Your task to perform on an android device: Open battery settings Image 0: 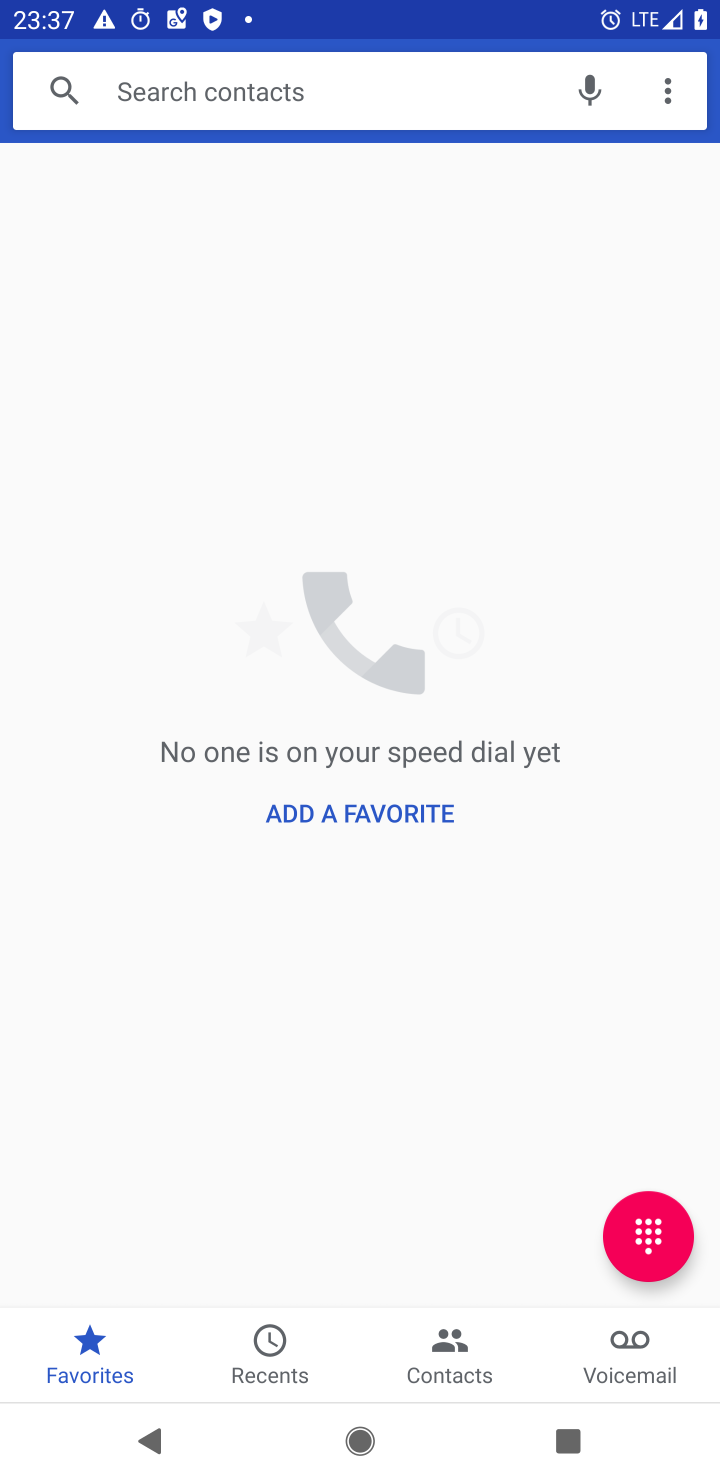
Step 0: press home button
Your task to perform on an android device: Open battery settings Image 1: 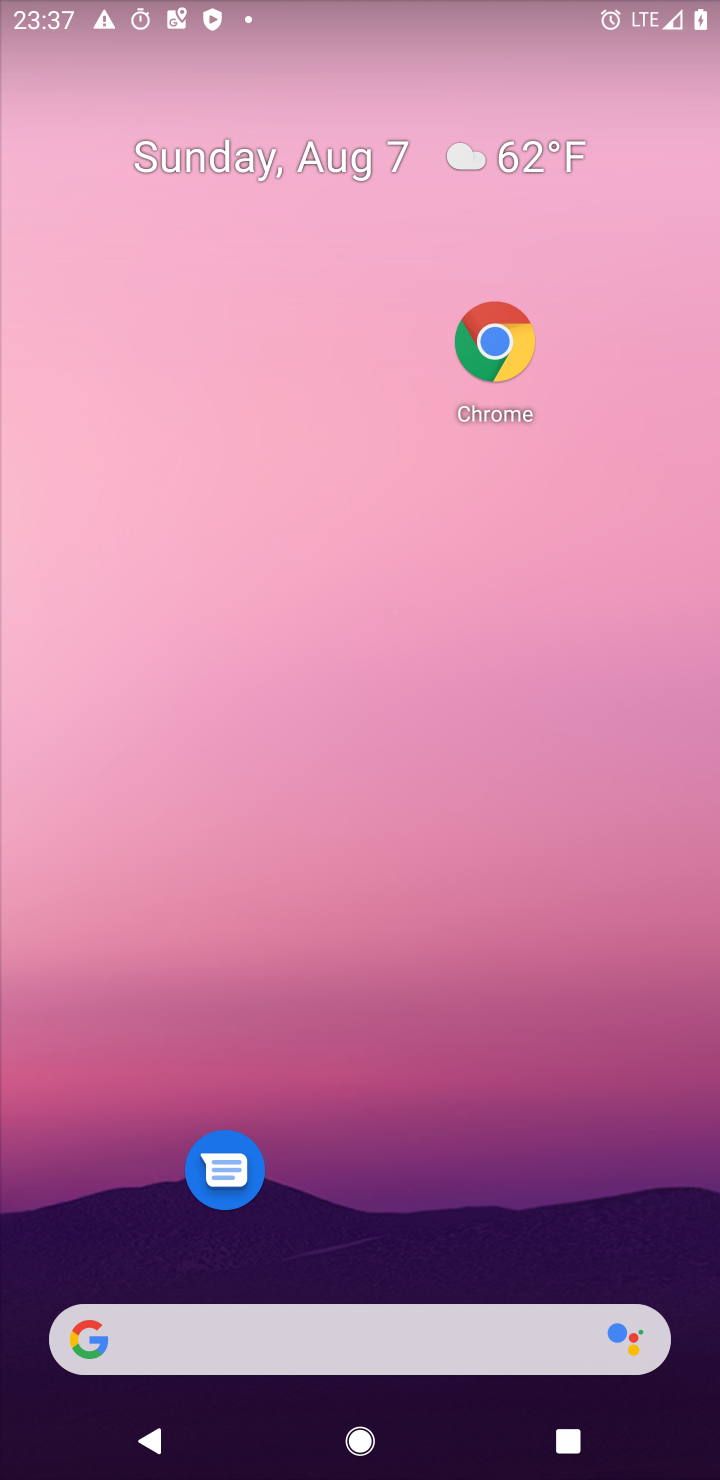
Step 1: drag from (437, 1322) to (330, 148)
Your task to perform on an android device: Open battery settings Image 2: 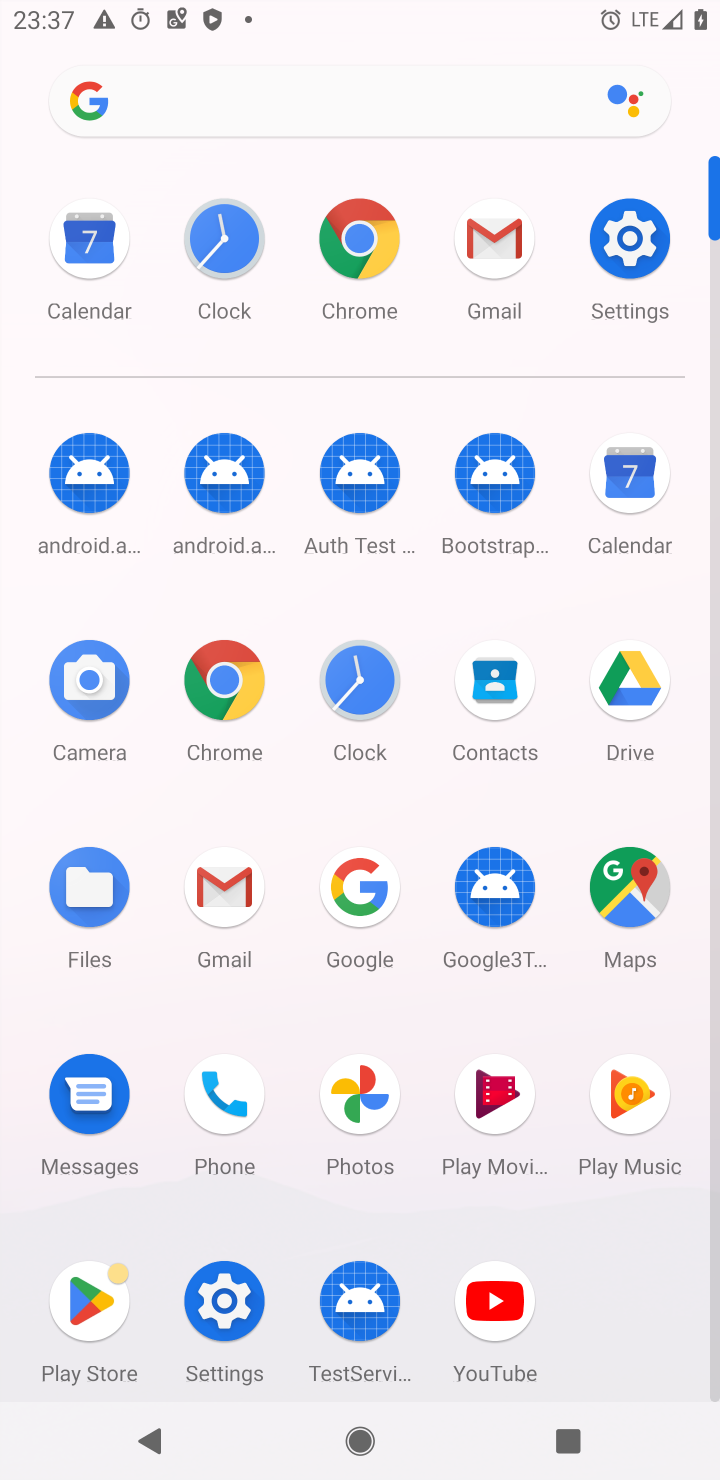
Step 2: click (625, 259)
Your task to perform on an android device: Open battery settings Image 3: 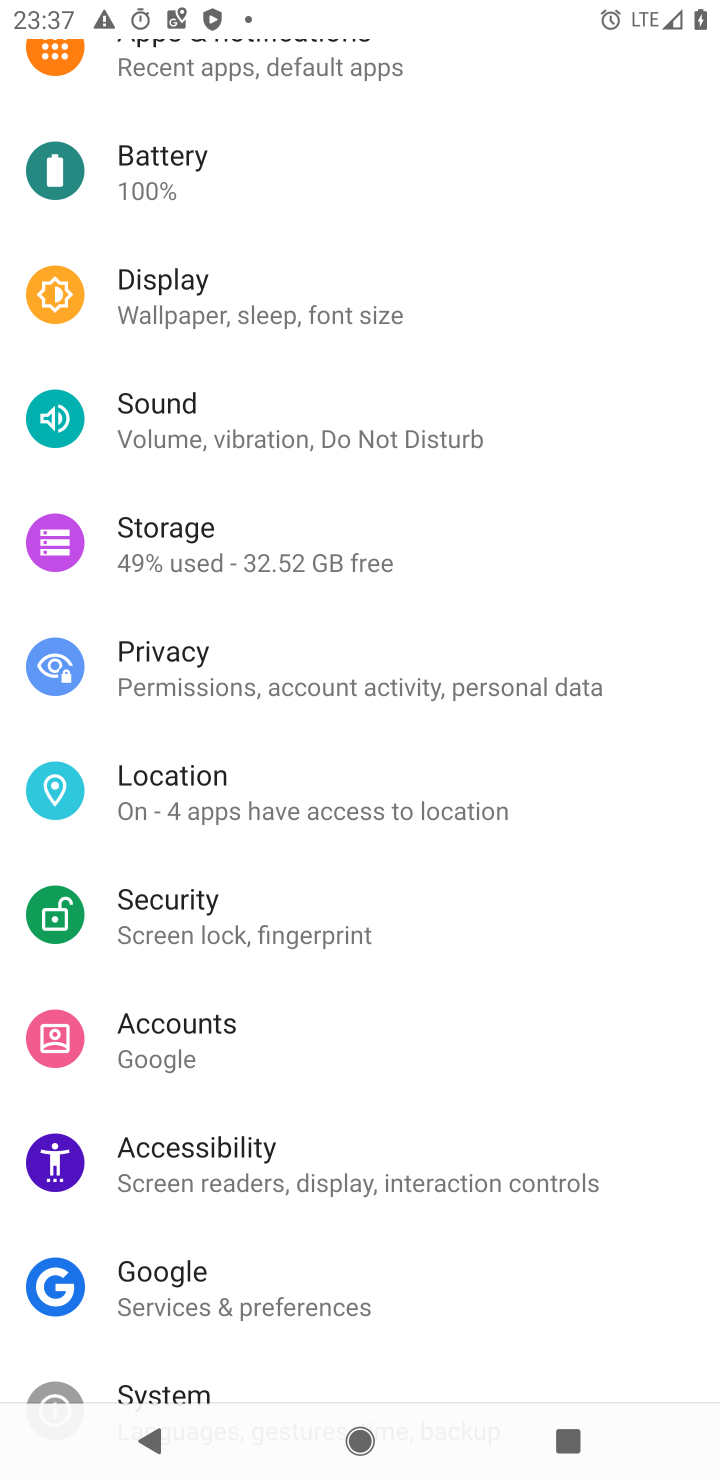
Step 3: click (263, 164)
Your task to perform on an android device: Open battery settings Image 4: 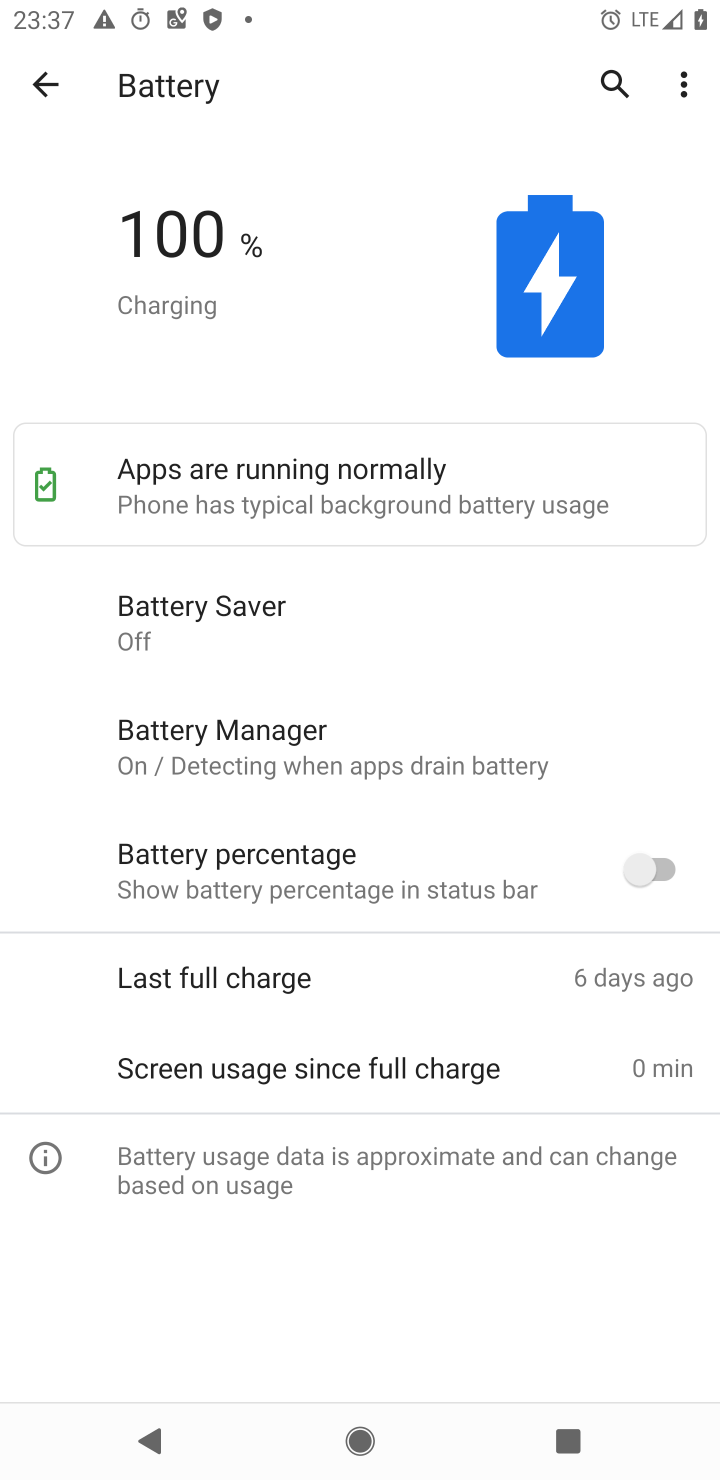
Step 4: task complete